Your task to perform on an android device: open app "eBay: The shopping marketplace" (install if not already installed), go to login, and select forgot password Image 0: 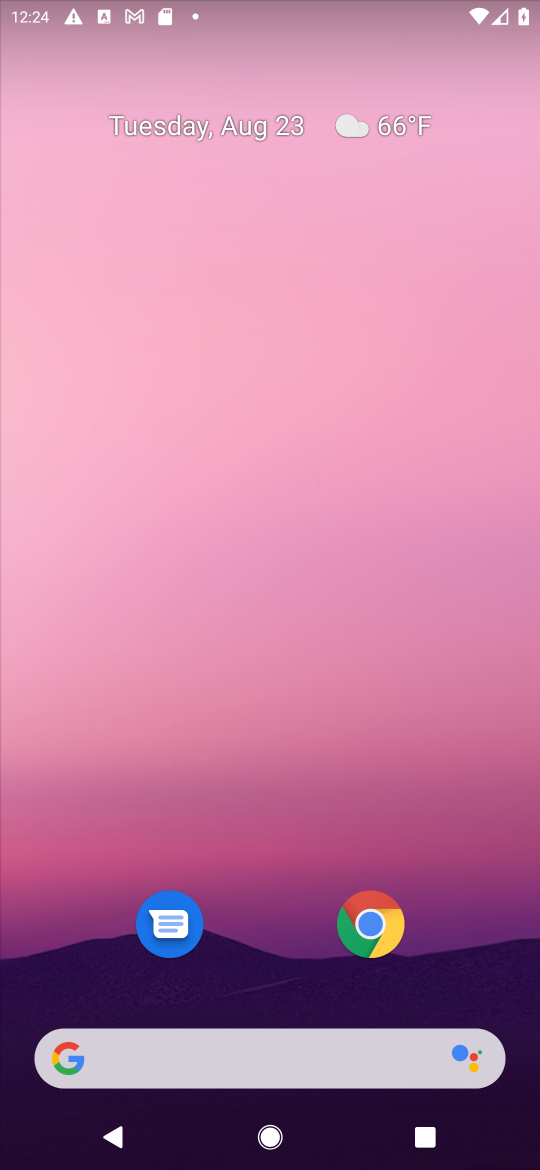
Step 0: press home button
Your task to perform on an android device: open app "eBay: The shopping marketplace" (install if not already installed), go to login, and select forgot password Image 1: 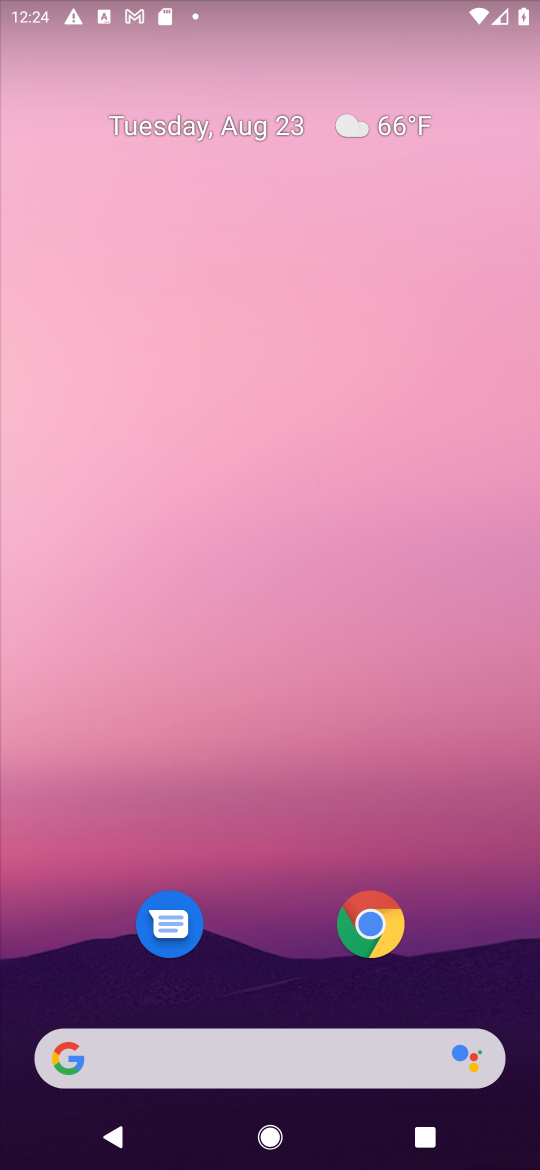
Step 1: drag from (438, 912) to (433, 212)
Your task to perform on an android device: open app "eBay: The shopping marketplace" (install if not already installed), go to login, and select forgot password Image 2: 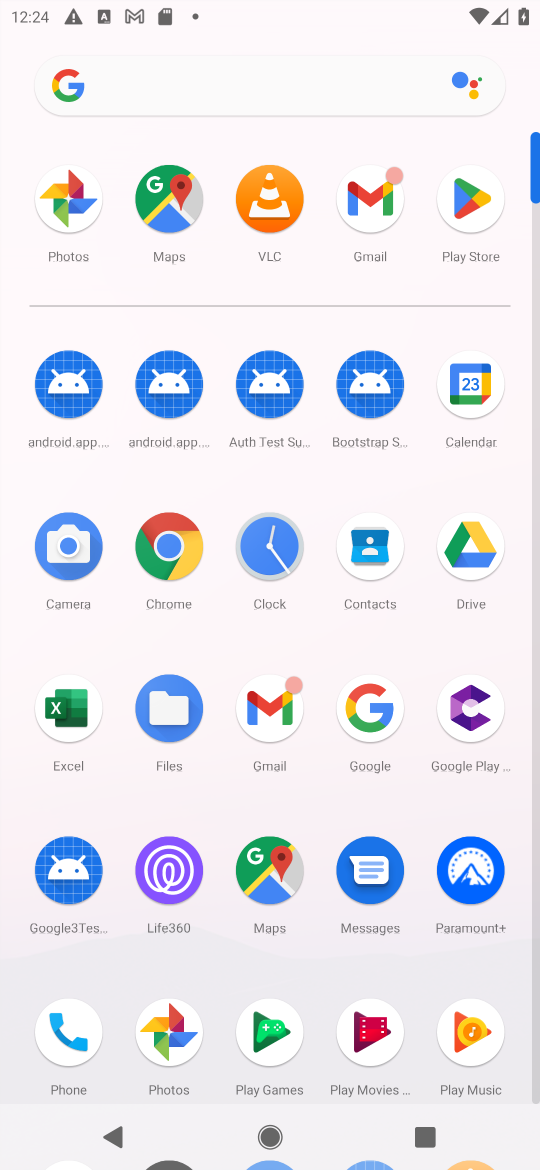
Step 2: click (458, 207)
Your task to perform on an android device: open app "eBay: The shopping marketplace" (install if not already installed), go to login, and select forgot password Image 3: 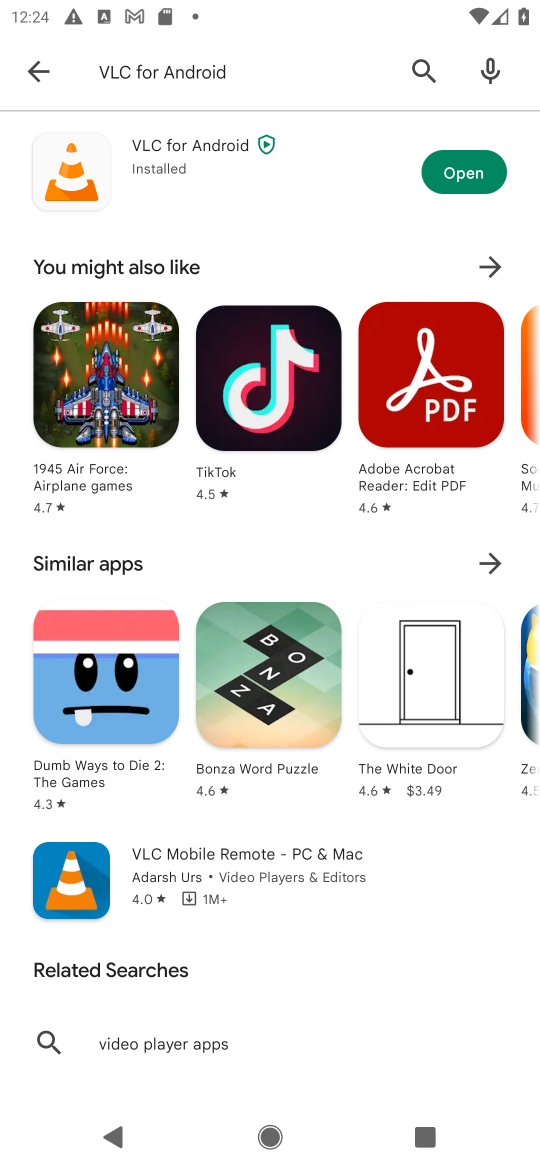
Step 3: press back button
Your task to perform on an android device: open app "eBay: The shopping marketplace" (install if not already installed), go to login, and select forgot password Image 4: 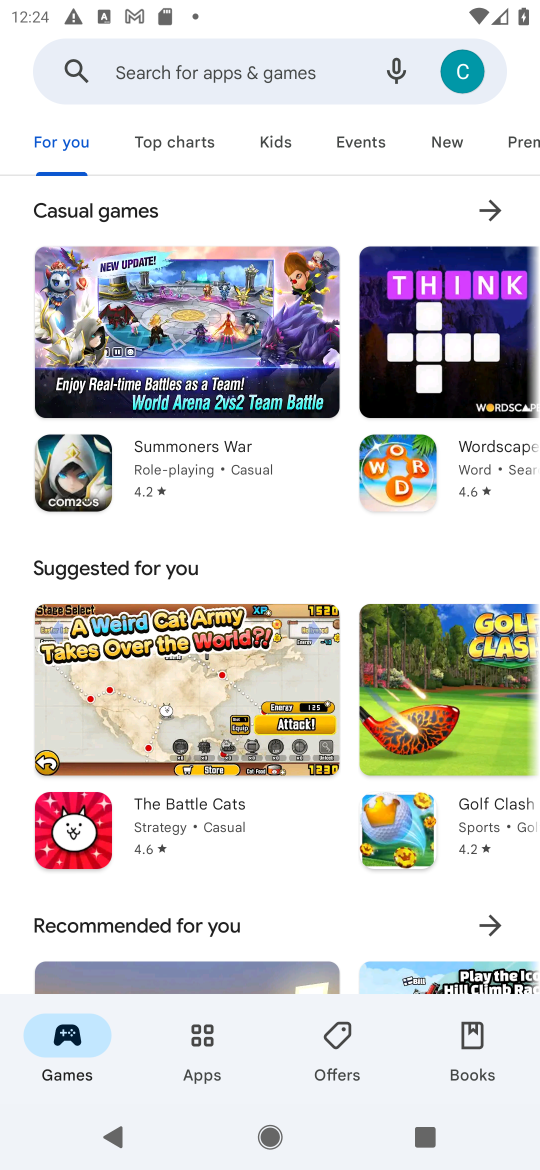
Step 4: click (226, 72)
Your task to perform on an android device: open app "eBay: The shopping marketplace" (install if not already installed), go to login, and select forgot password Image 5: 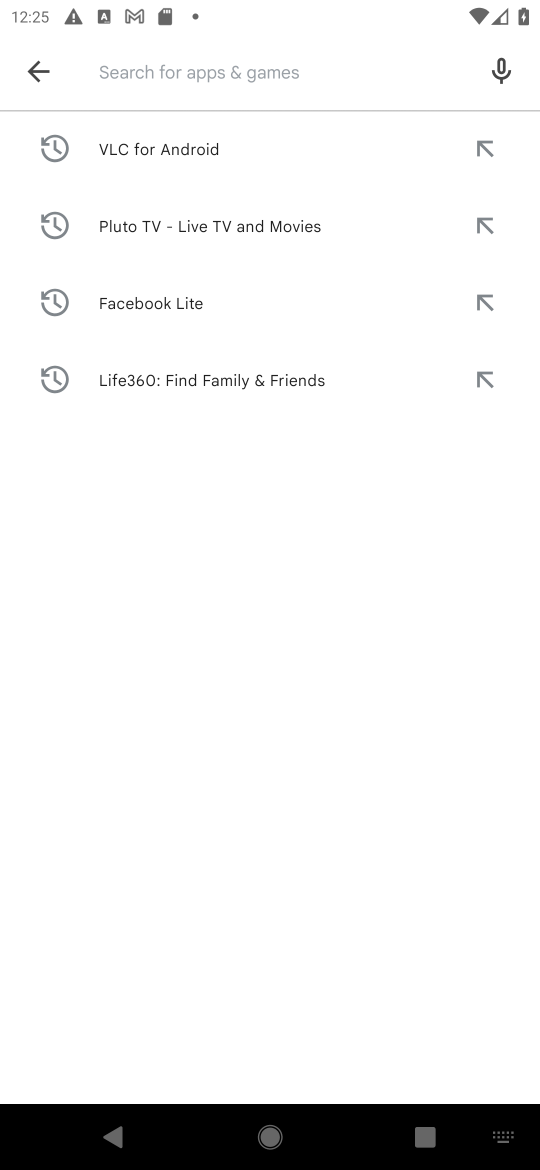
Step 5: type "eBay: The shopping marketplace"
Your task to perform on an android device: open app "eBay: The shopping marketplace" (install if not already installed), go to login, and select forgot password Image 6: 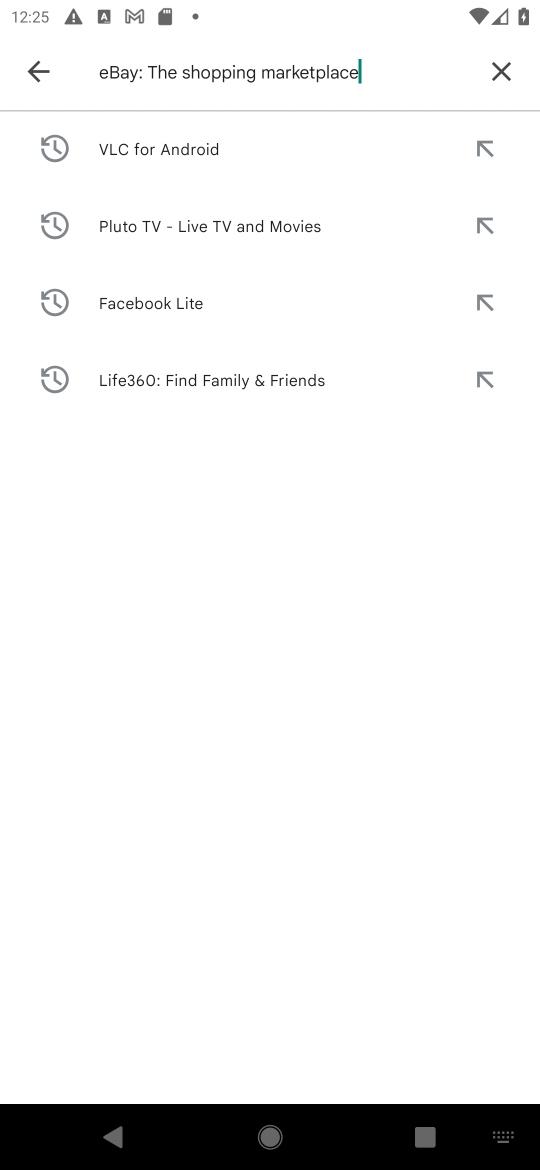
Step 6: press enter
Your task to perform on an android device: open app "eBay: The shopping marketplace" (install if not already installed), go to login, and select forgot password Image 7: 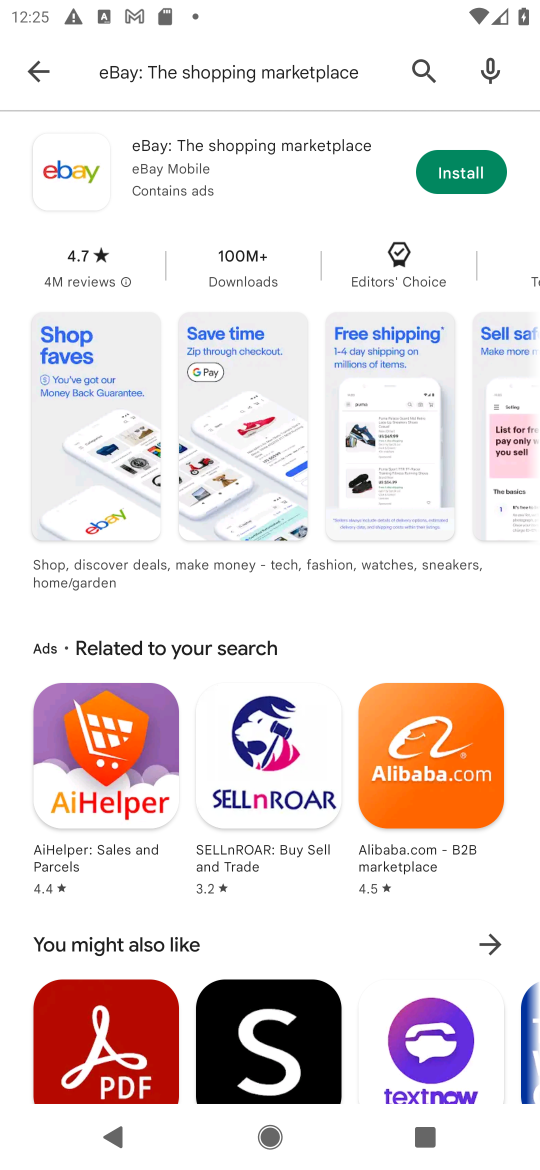
Step 7: click (482, 168)
Your task to perform on an android device: open app "eBay: The shopping marketplace" (install if not already installed), go to login, and select forgot password Image 8: 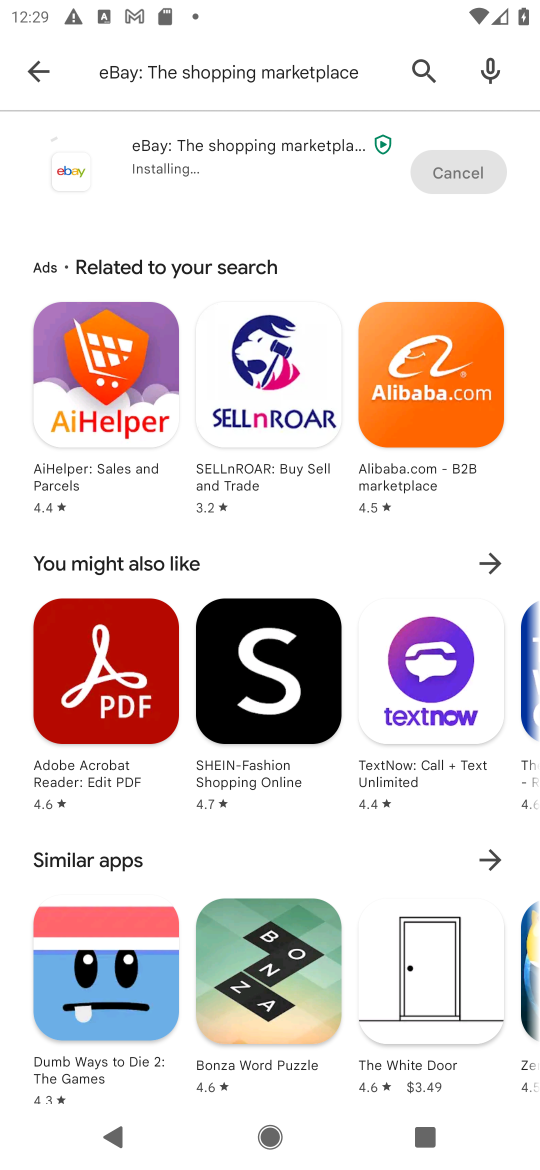
Step 8: task complete